Your task to perform on an android device: change the clock display to analog Image 0: 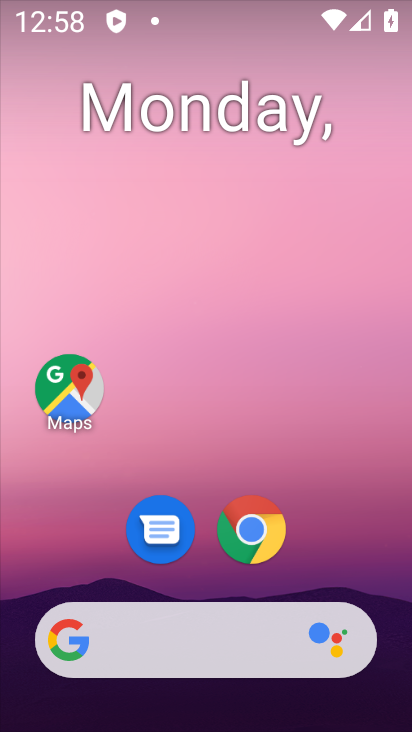
Step 0: drag from (187, 442) to (265, 35)
Your task to perform on an android device: change the clock display to analog Image 1: 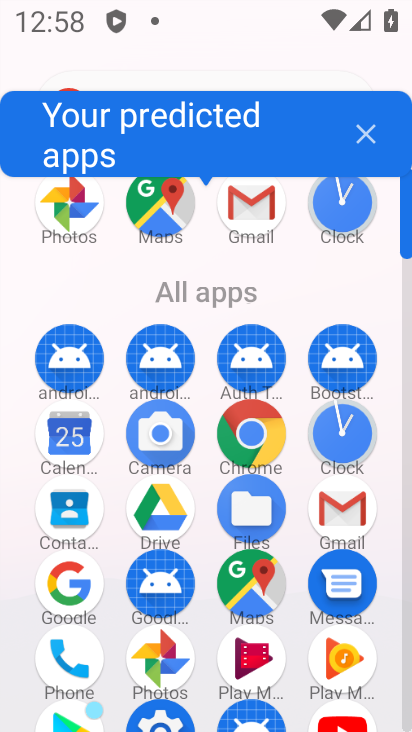
Step 1: click (339, 199)
Your task to perform on an android device: change the clock display to analog Image 2: 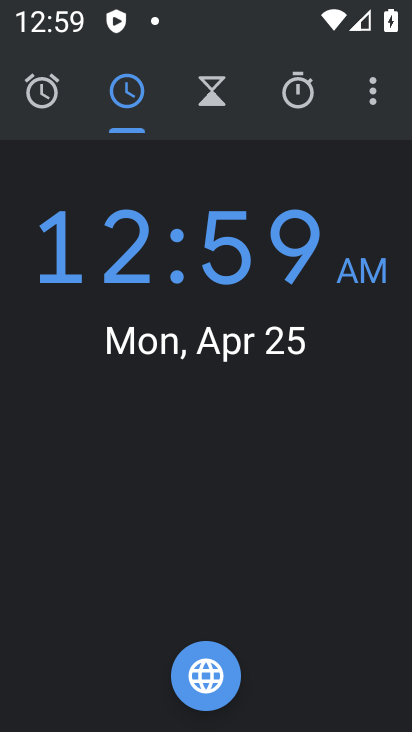
Step 2: click (378, 97)
Your task to perform on an android device: change the clock display to analog Image 3: 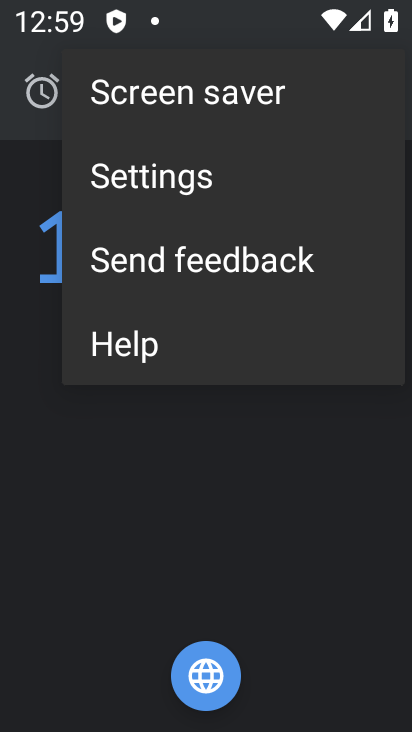
Step 3: click (133, 167)
Your task to perform on an android device: change the clock display to analog Image 4: 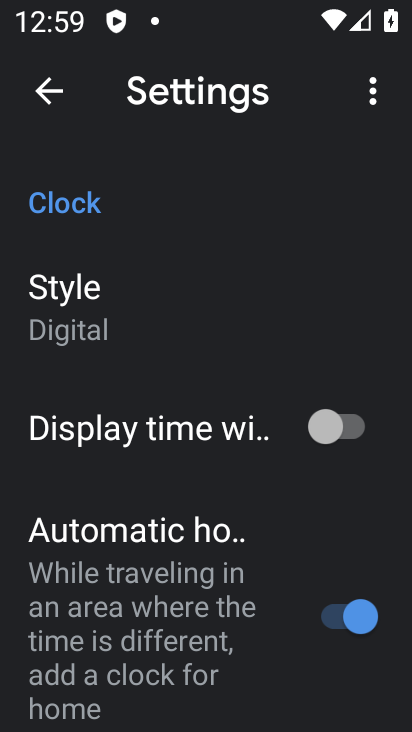
Step 4: click (82, 309)
Your task to perform on an android device: change the clock display to analog Image 5: 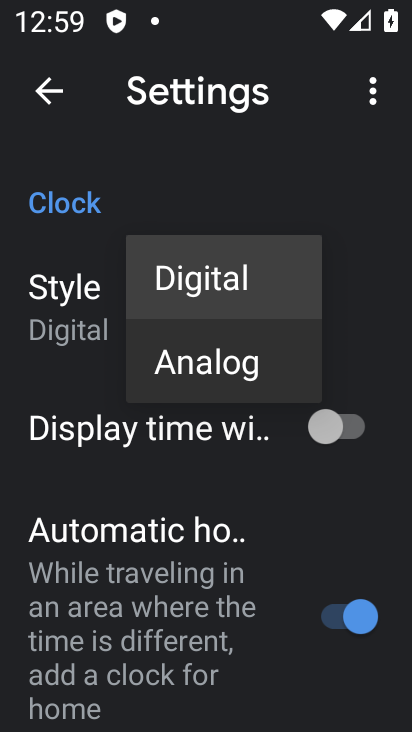
Step 5: click (208, 349)
Your task to perform on an android device: change the clock display to analog Image 6: 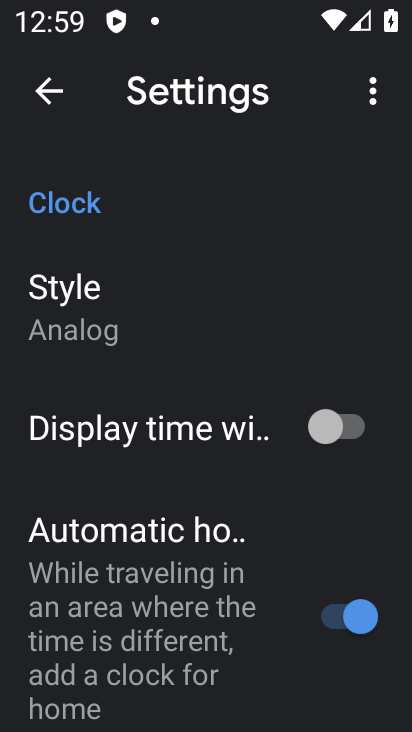
Step 6: task complete